Your task to perform on an android device: set the timer Image 0: 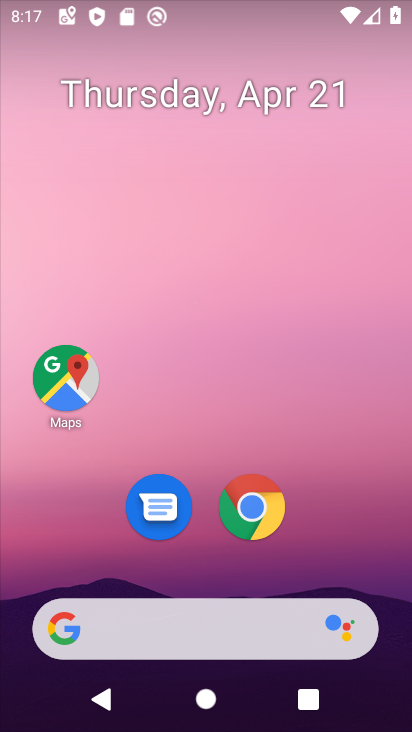
Step 0: drag from (339, 531) to (348, 152)
Your task to perform on an android device: set the timer Image 1: 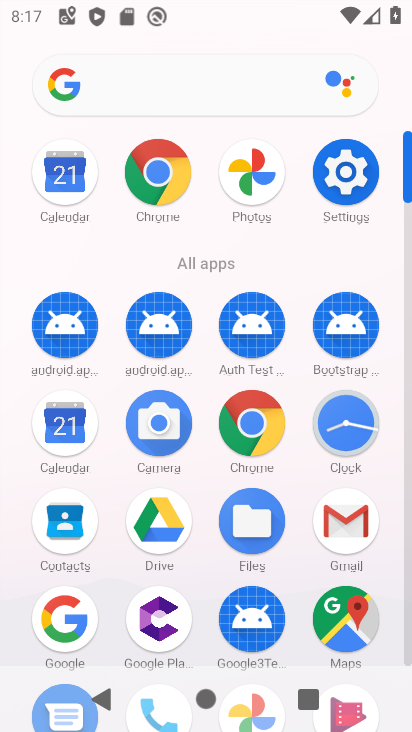
Step 1: click (357, 426)
Your task to perform on an android device: set the timer Image 2: 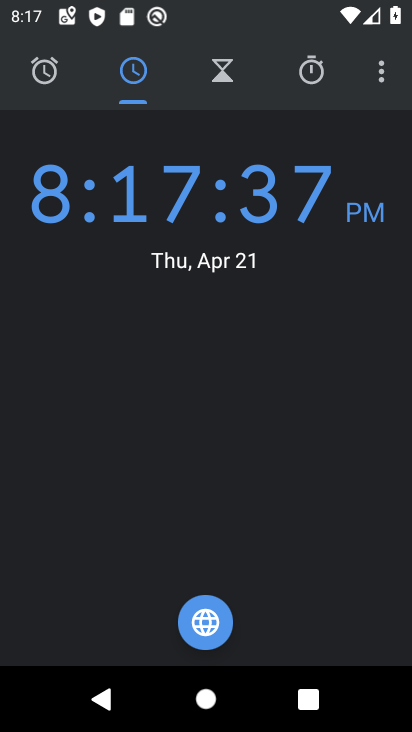
Step 2: click (229, 83)
Your task to perform on an android device: set the timer Image 3: 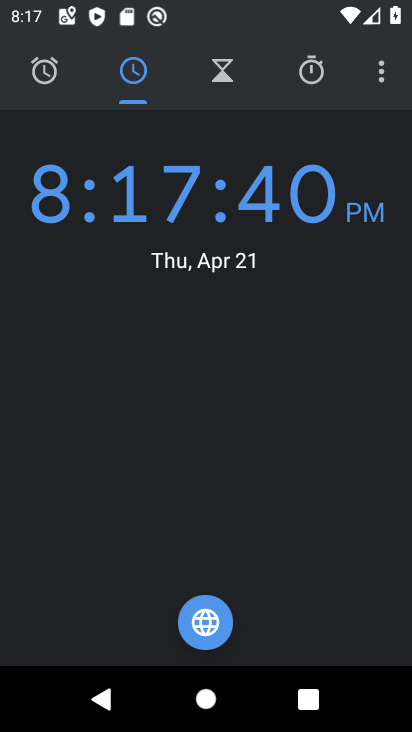
Step 3: click (227, 79)
Your task to perform on an android device: set the timer Image 4: 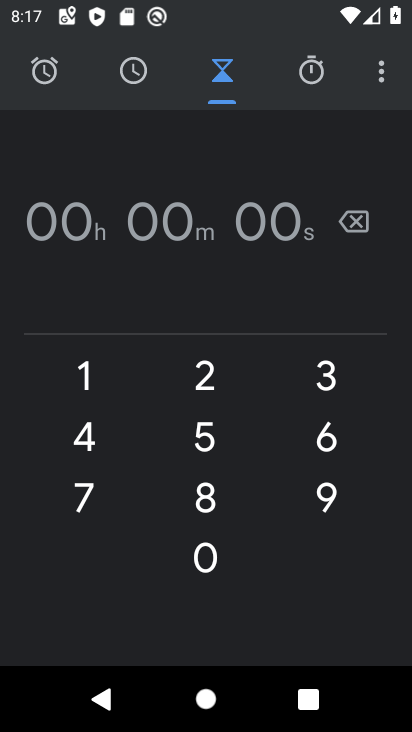
Step 4: click (92, 380)
Your task to perform on an android device: set the timer Image 5: 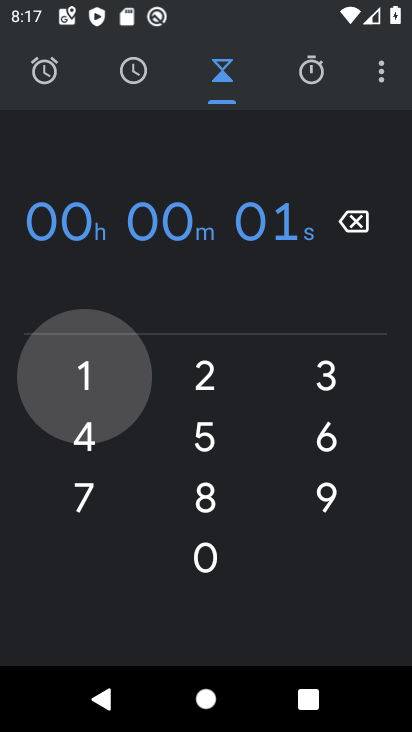
Step 5: click (223, 436)
Your task to perform on an android device: set the timer Image 6: 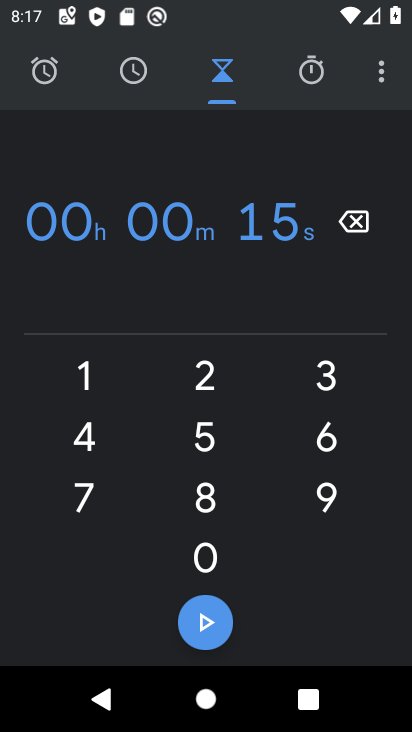
Step 6: click (218, 630)
Your task to perform on an android device: set the timer Image 7: 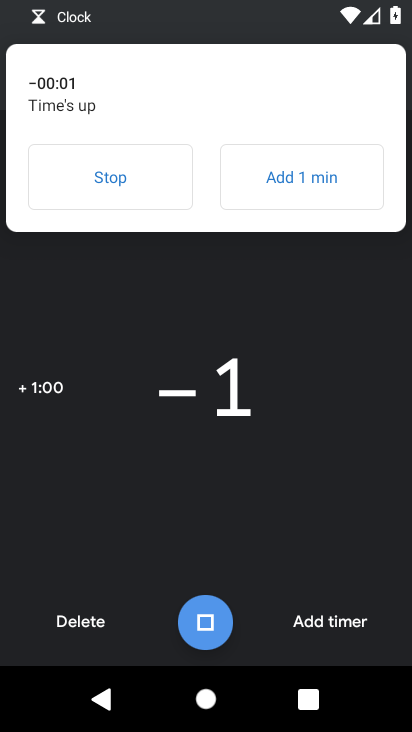
Step 7: click (115, 172)
Your task to perform on an android device: set the timer Image 8: 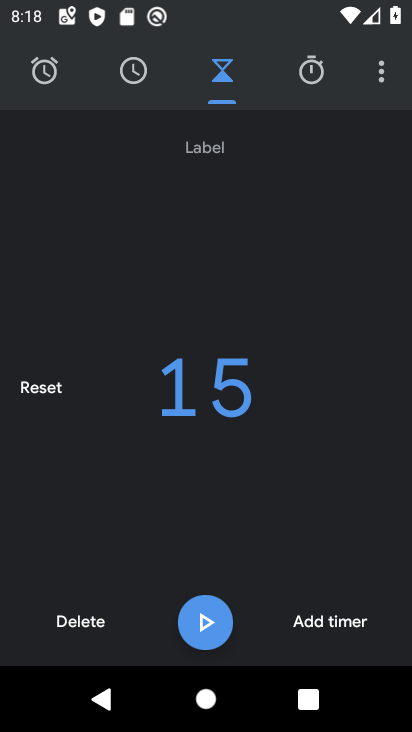
Step 8: task complete